Your task to perform on an android device: Do I have any events tomorrow? Image 0: 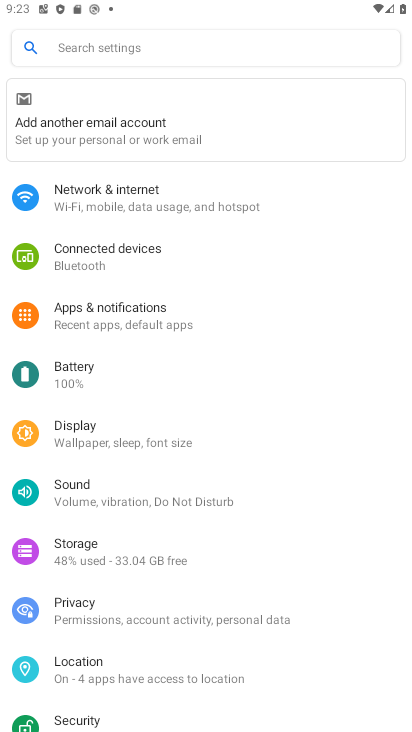
Step 0: press home button
Your task to perform on an android device: Do I have any events tomorrow? Image 1: 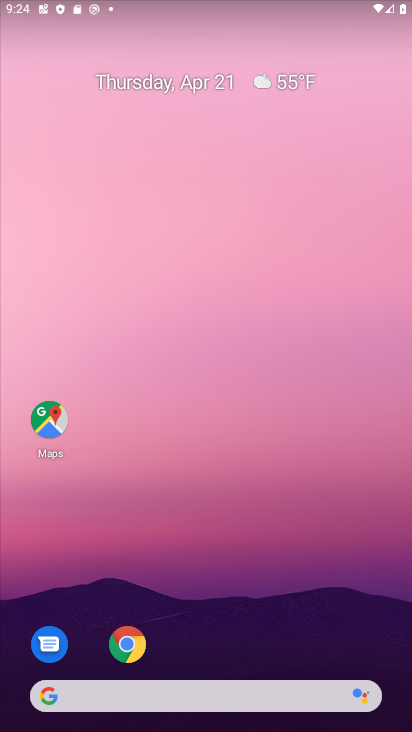
Step 1: drag from (265, 610) to (295, 181)
Your task to perform on an android device: Do I have any events tomorrow? Image 2: 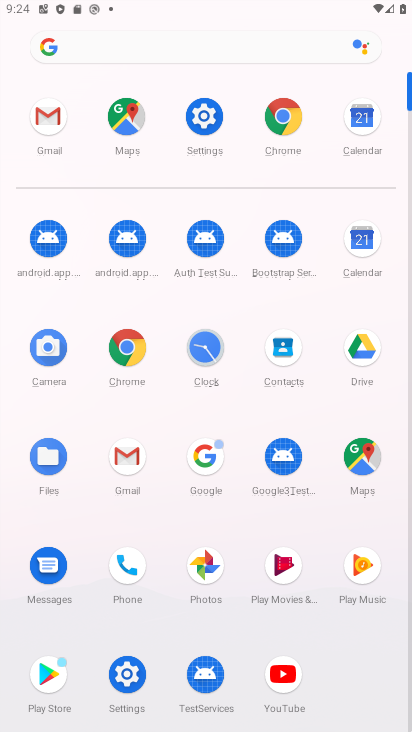
Step 2: click (358, 233)
Your task to perform on an android device: Do I have any events tomorrow? Image 3: 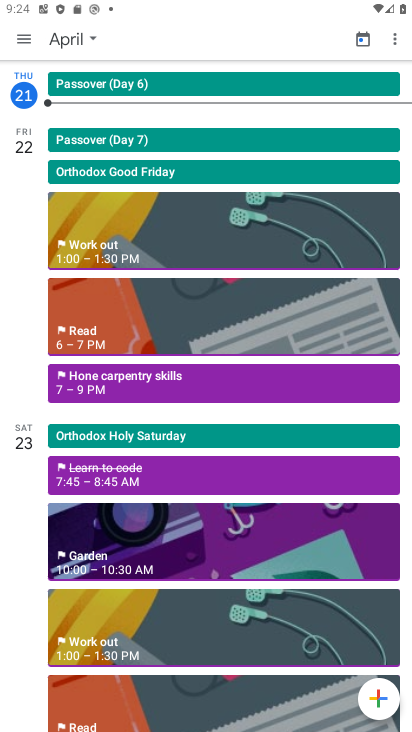
Step 3: task complete